Your task to perform on an android device: empty trash in the gmail app Image 0: 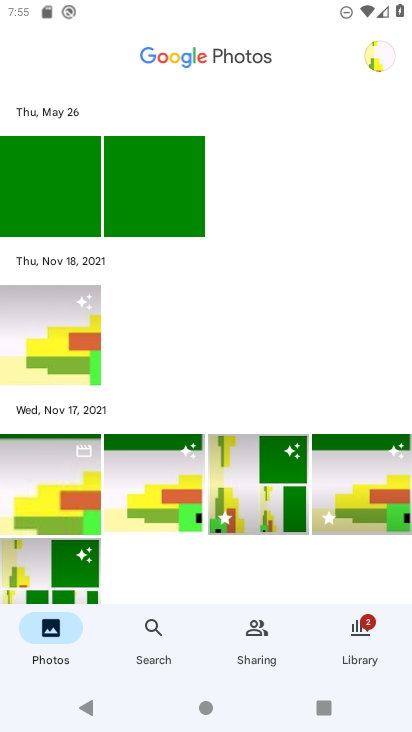
Step 0: press back button
Your task to perform on an android device: empty trash in the gmail app Image 1: 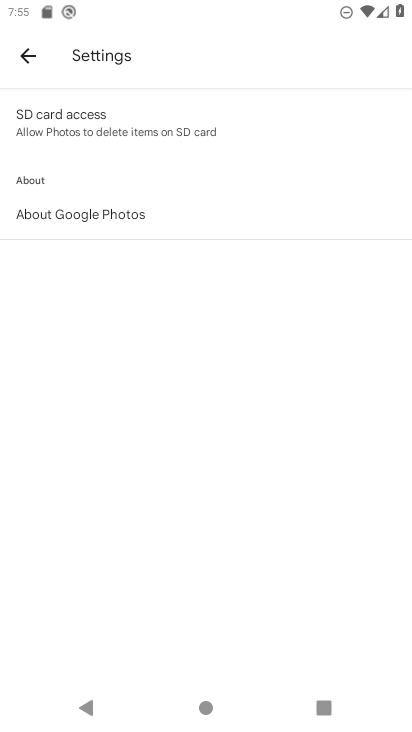
Step 1: press home button
Your task to perform on an android device: empty trash in the gmail app Image 2: 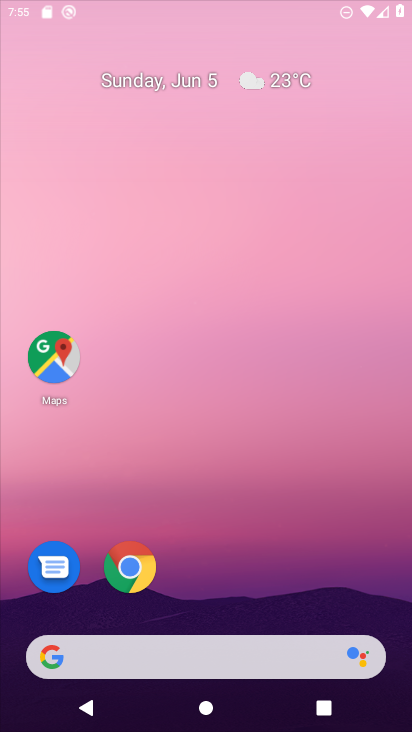
Step 2: drag from (392, 650) to (273, 114)
Your task to perform on an android device: empty trash in the gmail app Image 3: 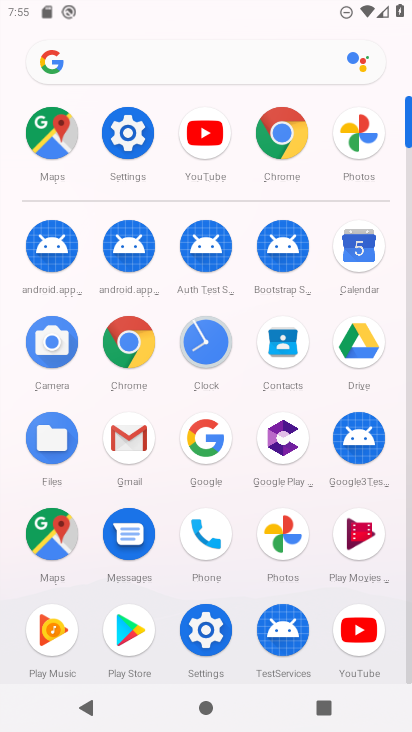
Step 3: click (122, 440)
Your task to perform on an android device: empty trash in the gmail app Image 4: 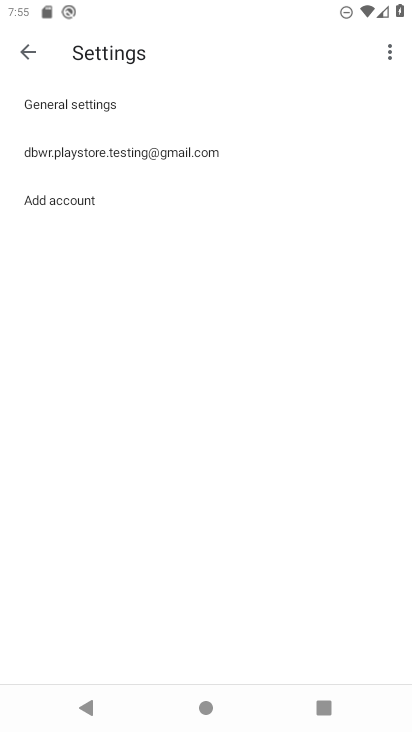
Step 4: press back button
Your task to perform on an android device: empty trash in the gmail app Image 5: 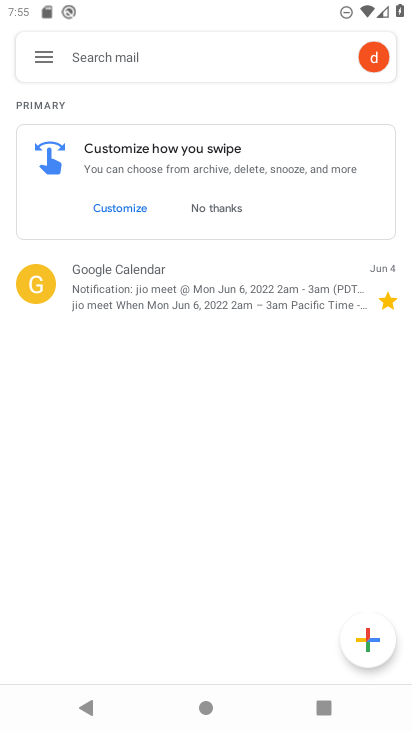
Step 5: click (38, 59)
Your task to perform on an android device: empty trash in the gmail app Image 6: 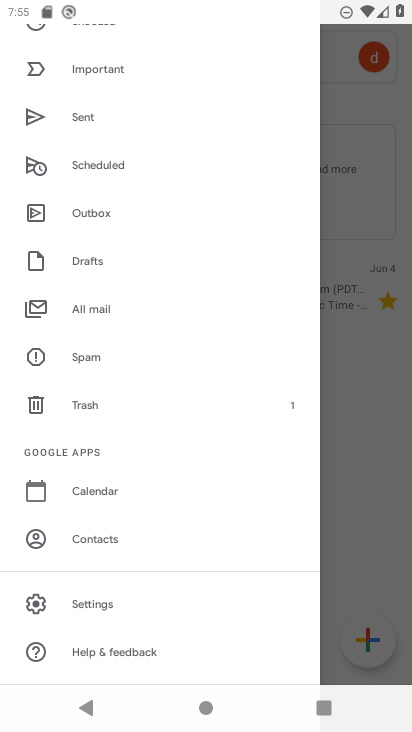
Step 6: click (78, 406)
Your task to perform on an android device: empty trash in the gmail app Image 7: 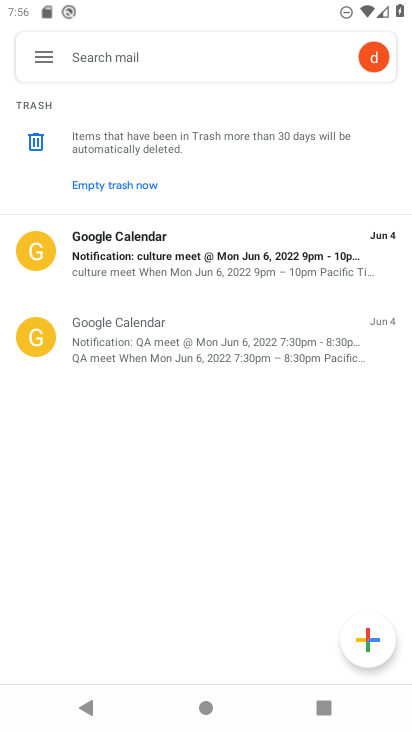
Step 7: click (126, 180)
Your task to perform on an android device: empty trash in the gmail app Image 8: 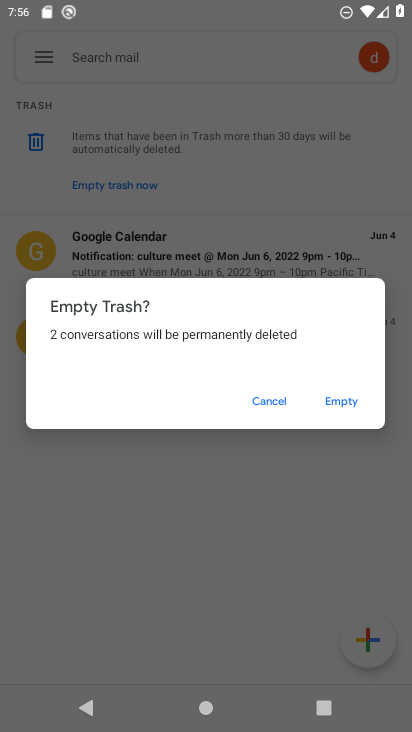
Step 8: click (355, 400)
Your task to perform on an android device: empty trash in the gmail app Image 9: 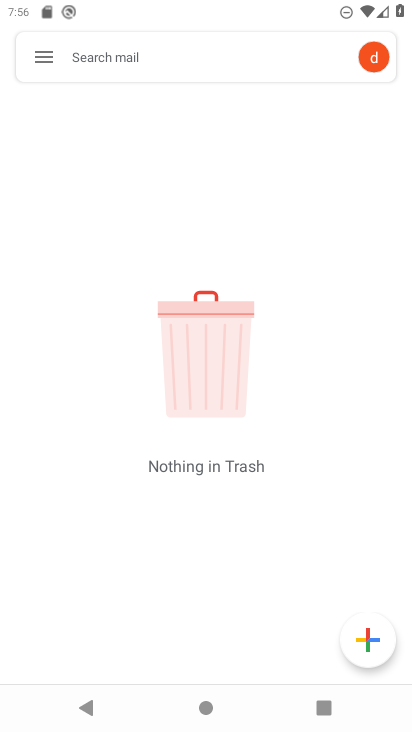
Step 9: task complete